Your task to perform on an android device: uninstall "Speedtest by Ookla" Image 0: 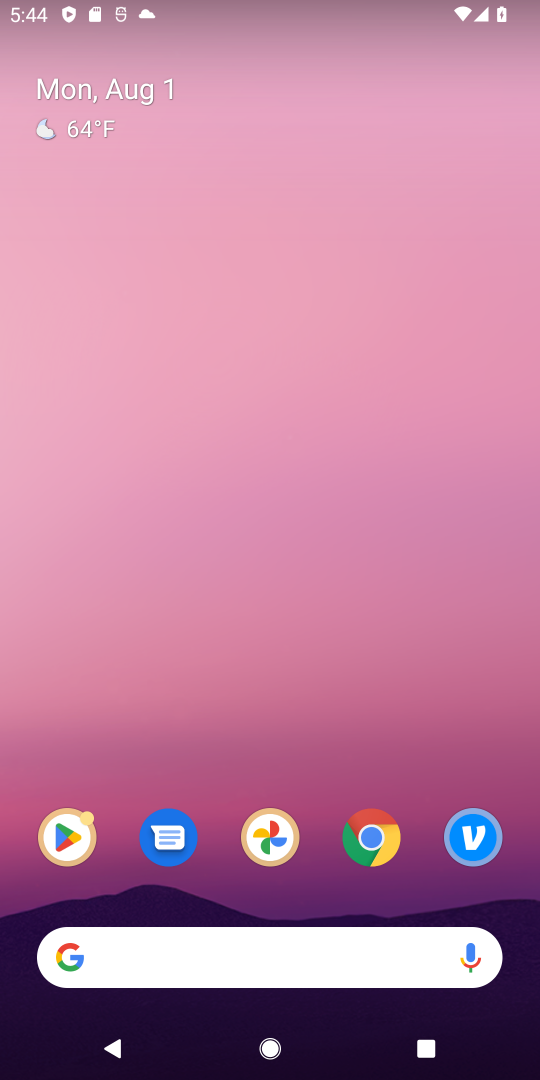
Step 0: click (82, 830)
Your task to perform on an android device: uninstall "Speedtest by Ookla" Image 1: 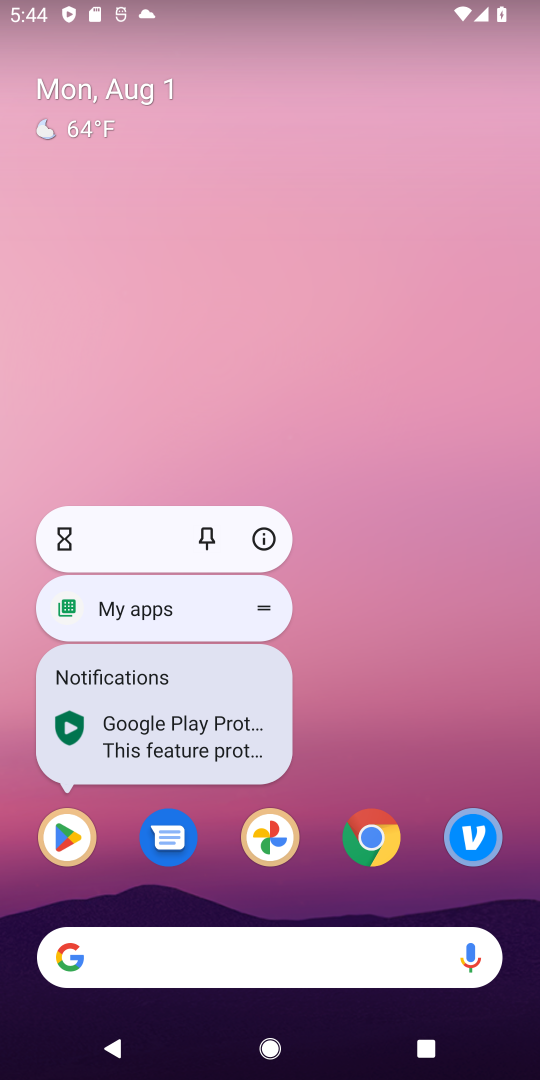
Step 1: click (59, 808)
Your task to perform on an android device: uninstall "Speedtest by Ookla" Image 2: 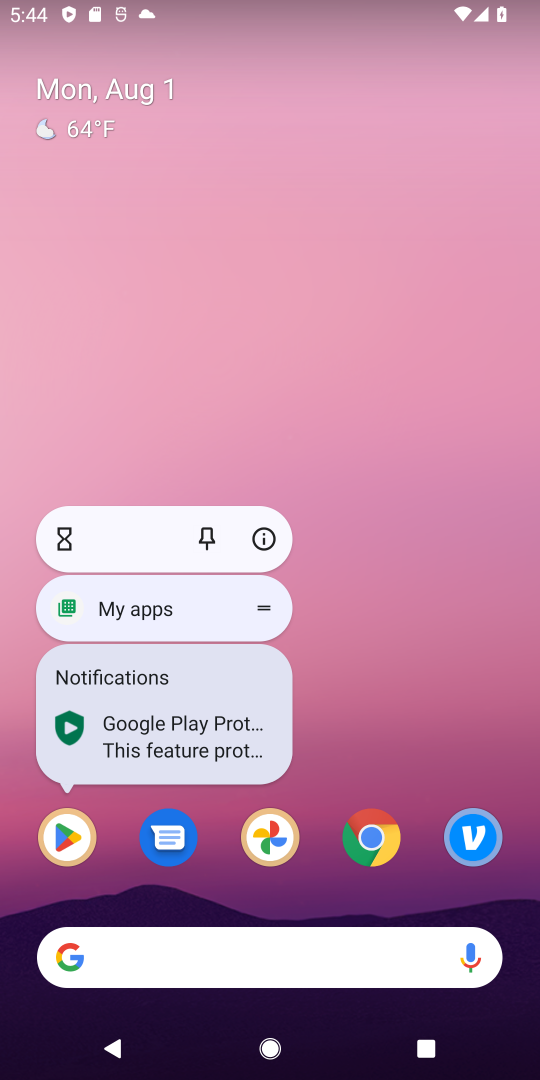
Step 2: click (66, 825)
Your task to perform on an android device: uninstall "Speedtest by Ookla" Image 3: 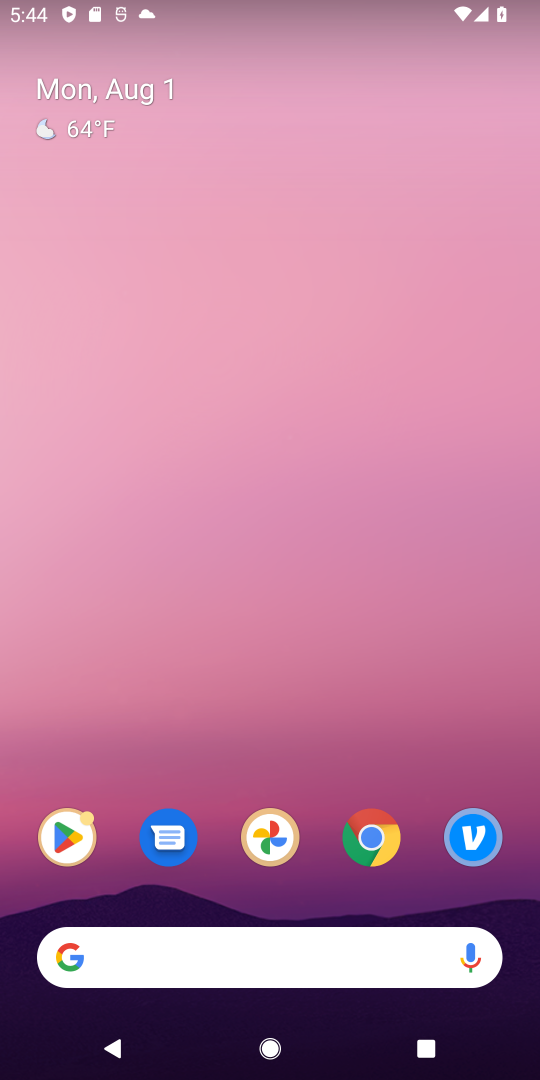
Step 3: click (66, 825)
Your task to perform on an android device: uninstall "Speedtest by Ookla" Image 4: 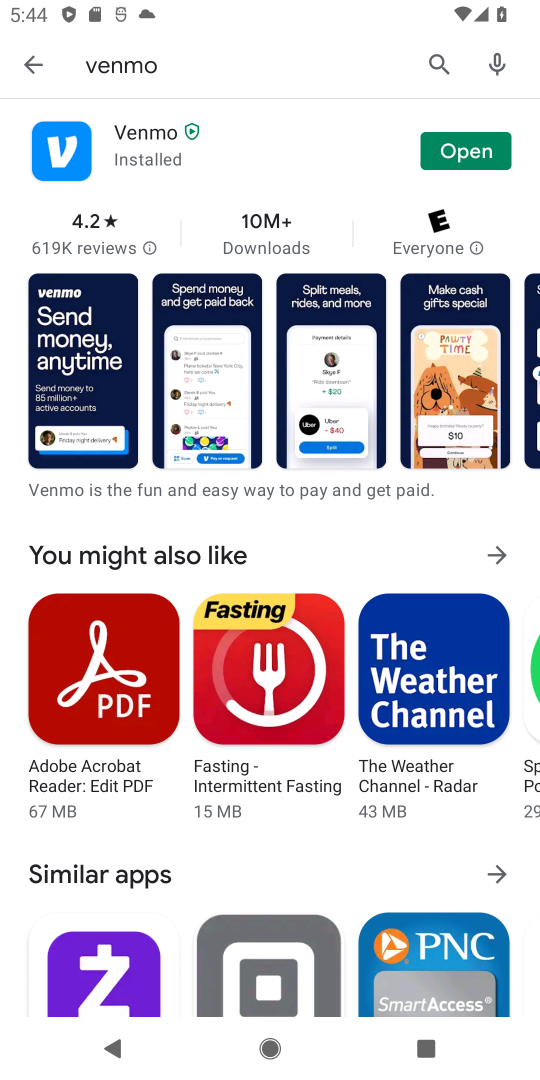
Step 4: click (430, 58)
Your task to perform on an android device: uninstall "Speedtest by Ookla" Image 5: 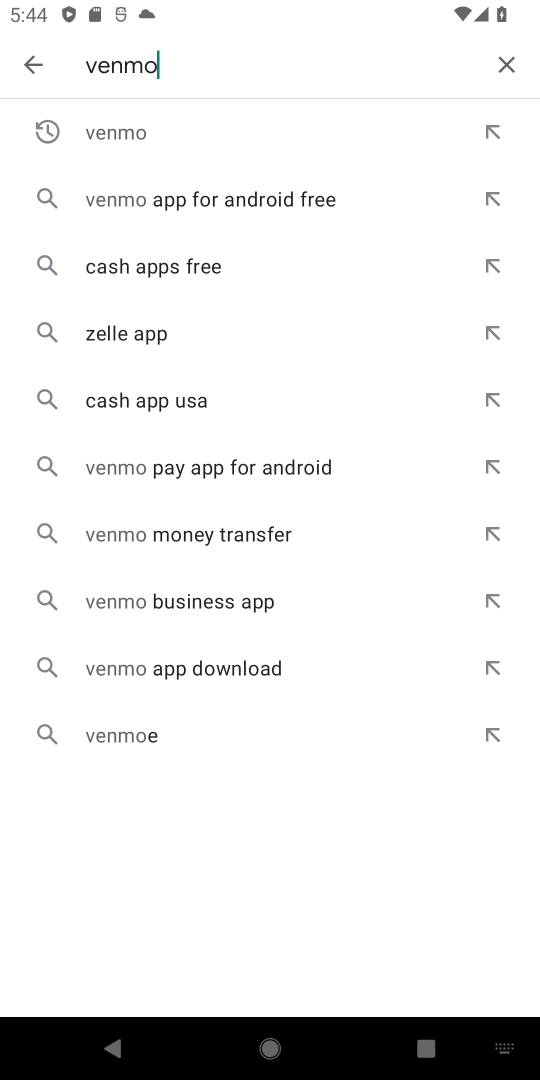
Step 5: click (506, 71)
Your task to perform on an android device: uninstall "Speedtest by Ookla" Image 6: 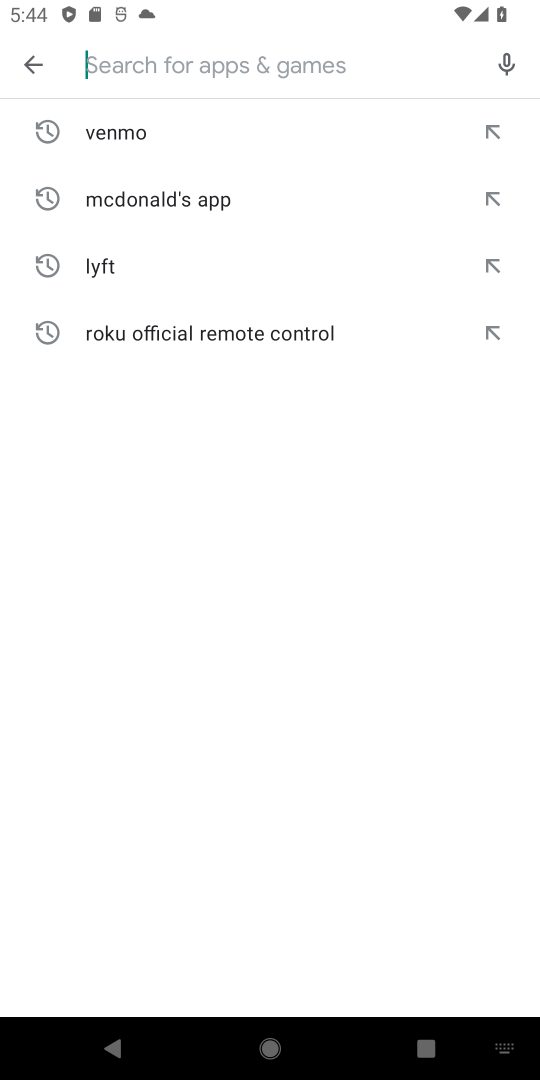
Step 6: type "Speedtest"
Your task to perform on an android device: uninstall "Speedtest by Ookla" Image 7: 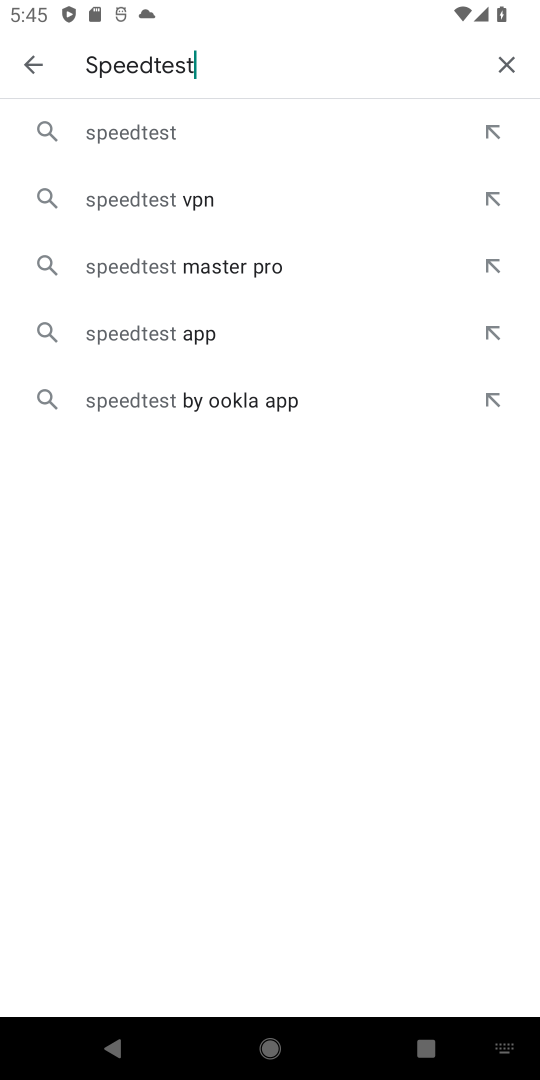
Step 7: press enter
Your task to perform on an android device: uninstall "Speedtest by Ookla" Image 8: 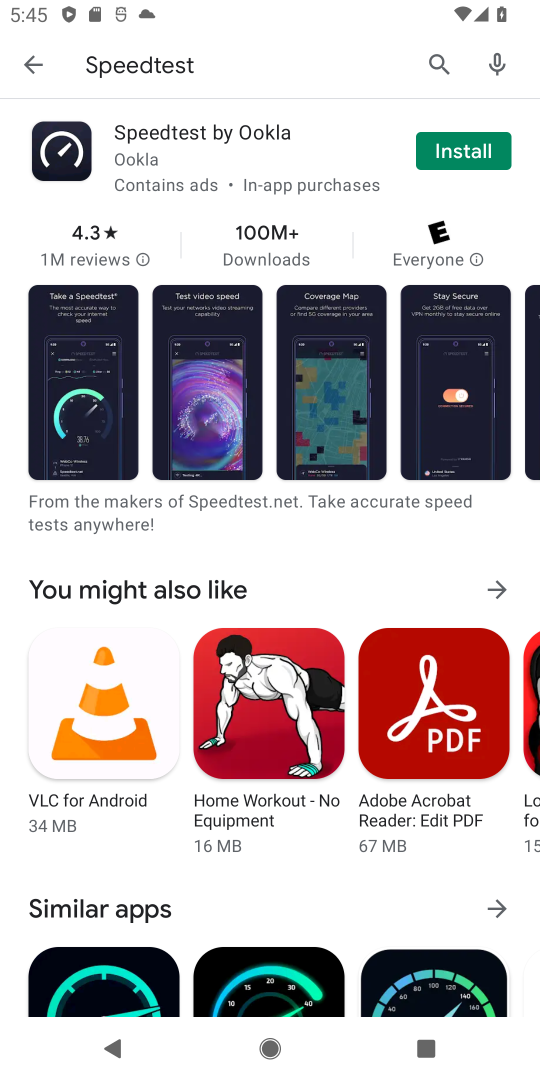
Step 8: task complete